Your task to perform on an android device: turn off translation in the chrome app Image 0: 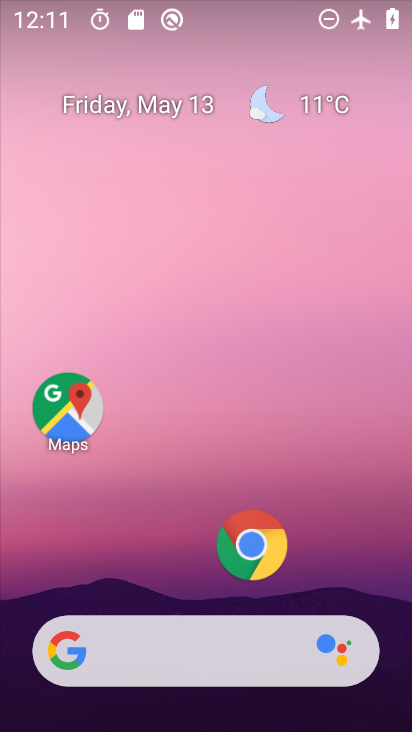
Step 0: drag from (198, 513) to (190, 75)
Your task to perform on an android device: turn off translation in the chrome app Image 1: 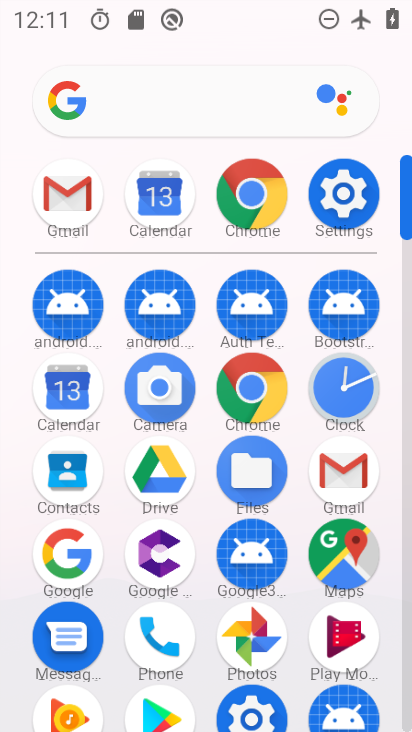
Step 1: click (251, 191)
Your task to perform on an android device: turn off translation in the chrome app Image 2: 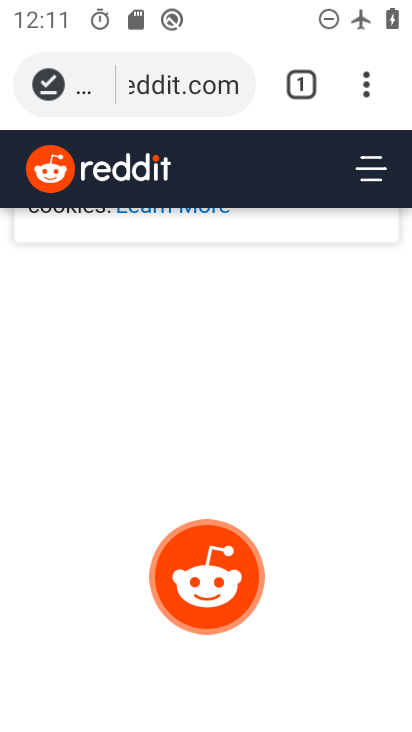
Step 2: click (366, 82)
Your task to perform on an android device: turn off translation in the chrome app Image 3: 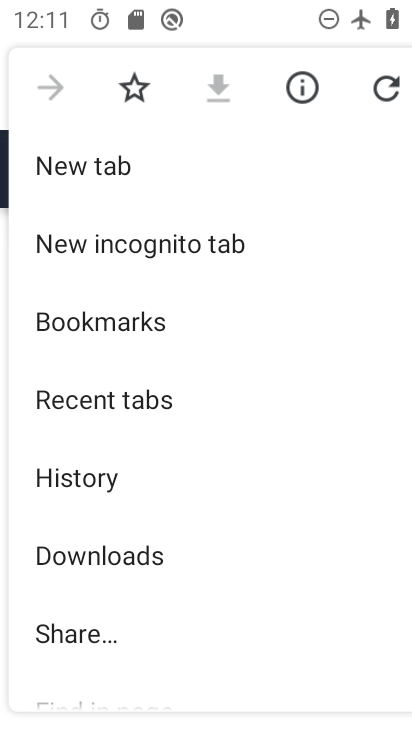
Step 3: drag from (171, 617) to (166, 102)
Your task to perform on an android device: turn off translation in the chrome app Image 4: 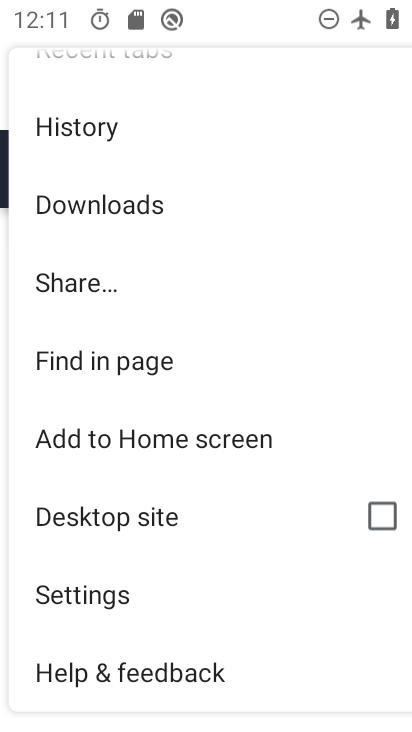
Step 4: click (139, 589)
Your task to perform on an android device: turn off translation in the chrome app Image 5: 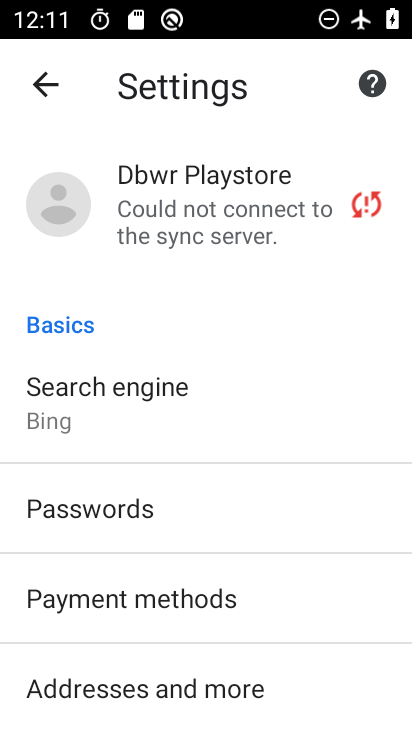
Step 5: drag from (246, 642) to (258, 172)
Your task to perform on an android device: turn off translation in the chrome app Image 6: 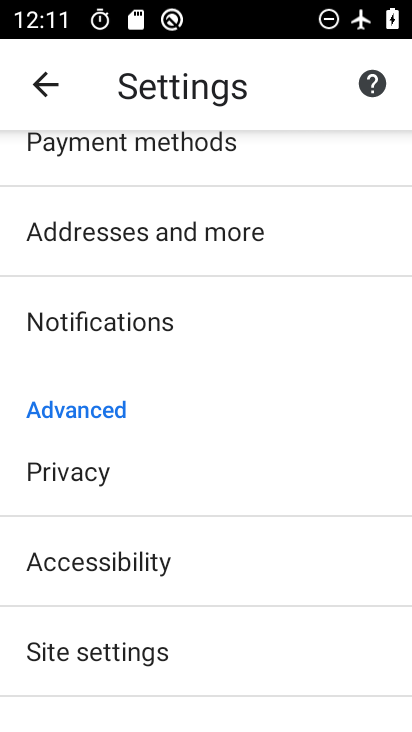
Step 6: drag from (196, 668) to (216, 227)
Your task to perform on an android device: turn off translation in the chrome app Image 7: 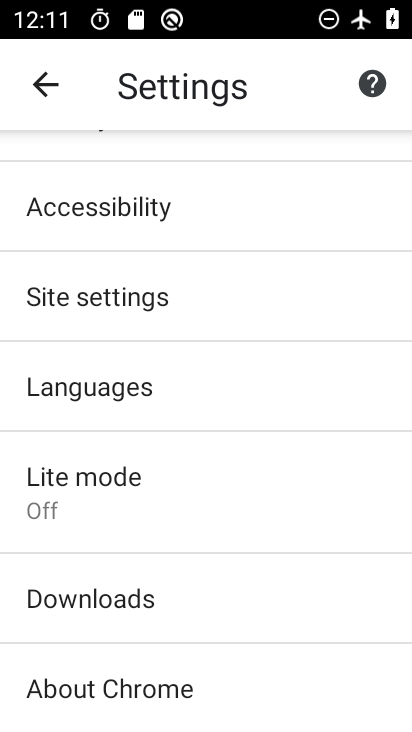
Step 7: click (179, 382)
Your task to perform on an android device: turn off translation in the chrome app Image 8: 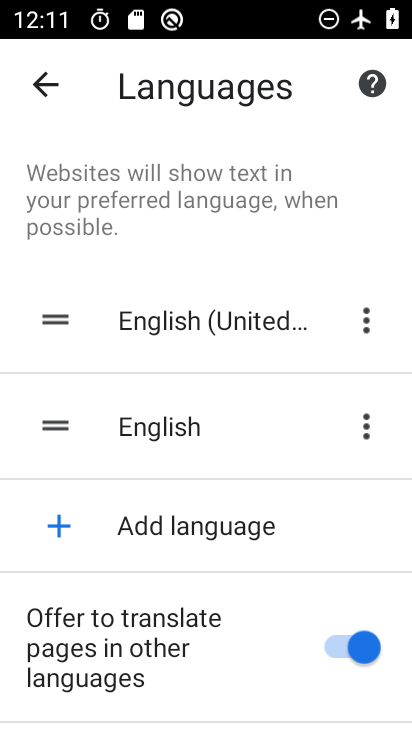
Step 8: click (332, 641)
Your task to perform on an android device: turn off translation in the chrome app Image 9: 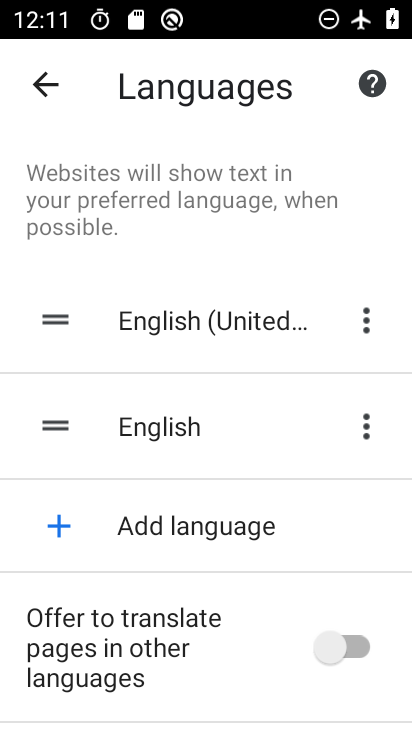
Step 9: task complete